Your task to perform on an android device: move a message to another label in the gmail app Image 0: 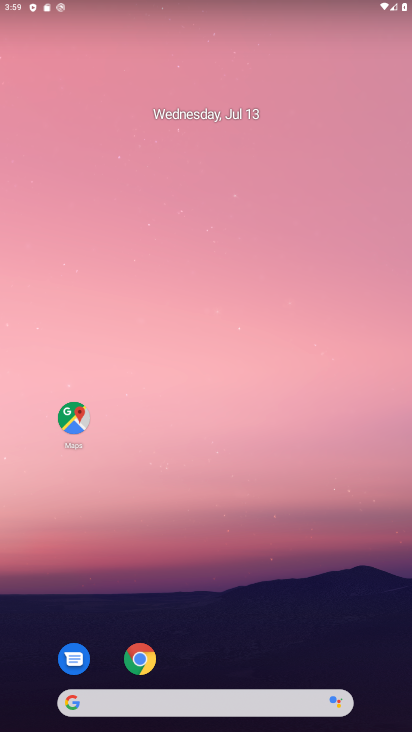
Step 0: drag from (170, 688) to (235, 277)
Your task to perform on an android device: move a message to another label in the gmail app Image 1: 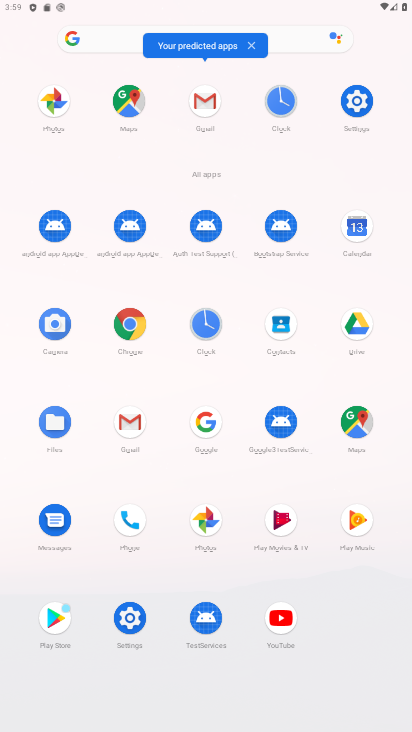
Step 1: click (145, 429)
Your task to perform on an android device: move a message to another label in the gmail app Image 2: 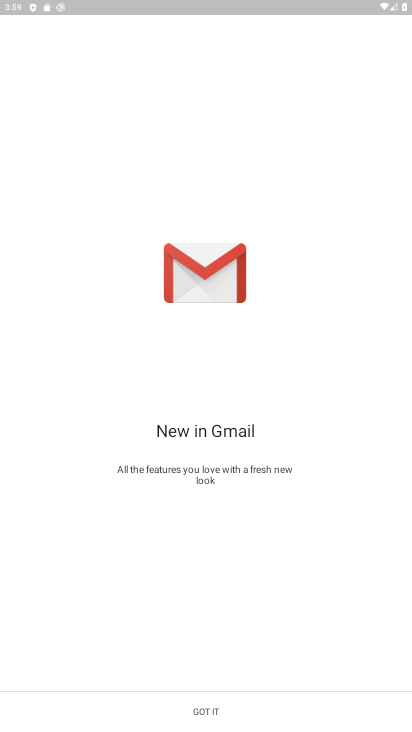
Step 2: click (190, 711)
Your task to perform on an android device: move a message to another label in the gmail app Image 3: 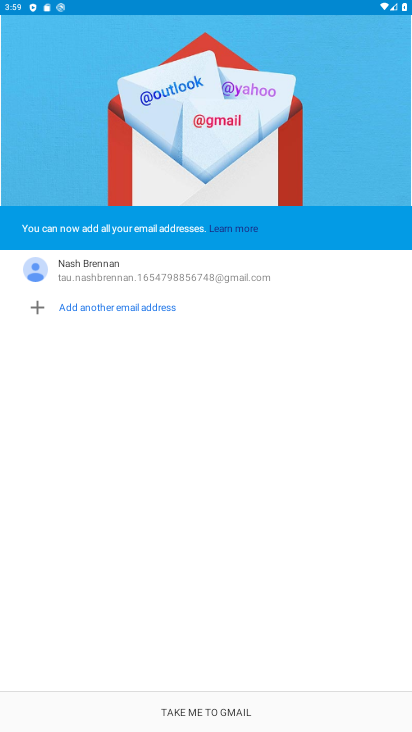
Step 3: click (190, 711)
Your task to perform on an android device: move a message to another label in the gmail app Image 4: 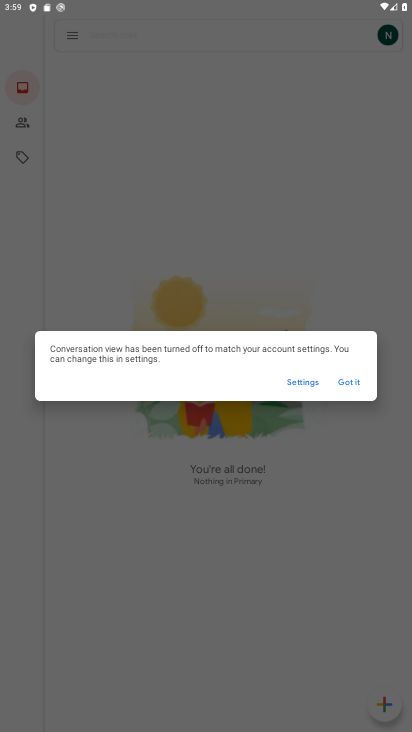
Step 4: click (352, 377)
Your task to perform on an android device: move a message to another label in the gmail app Image 5: 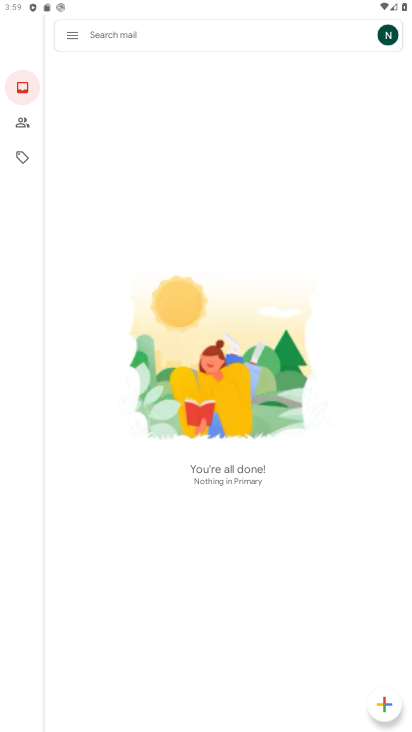
Step 5: task complete